Your task to perform on an android device: Open sound settings Image 0: 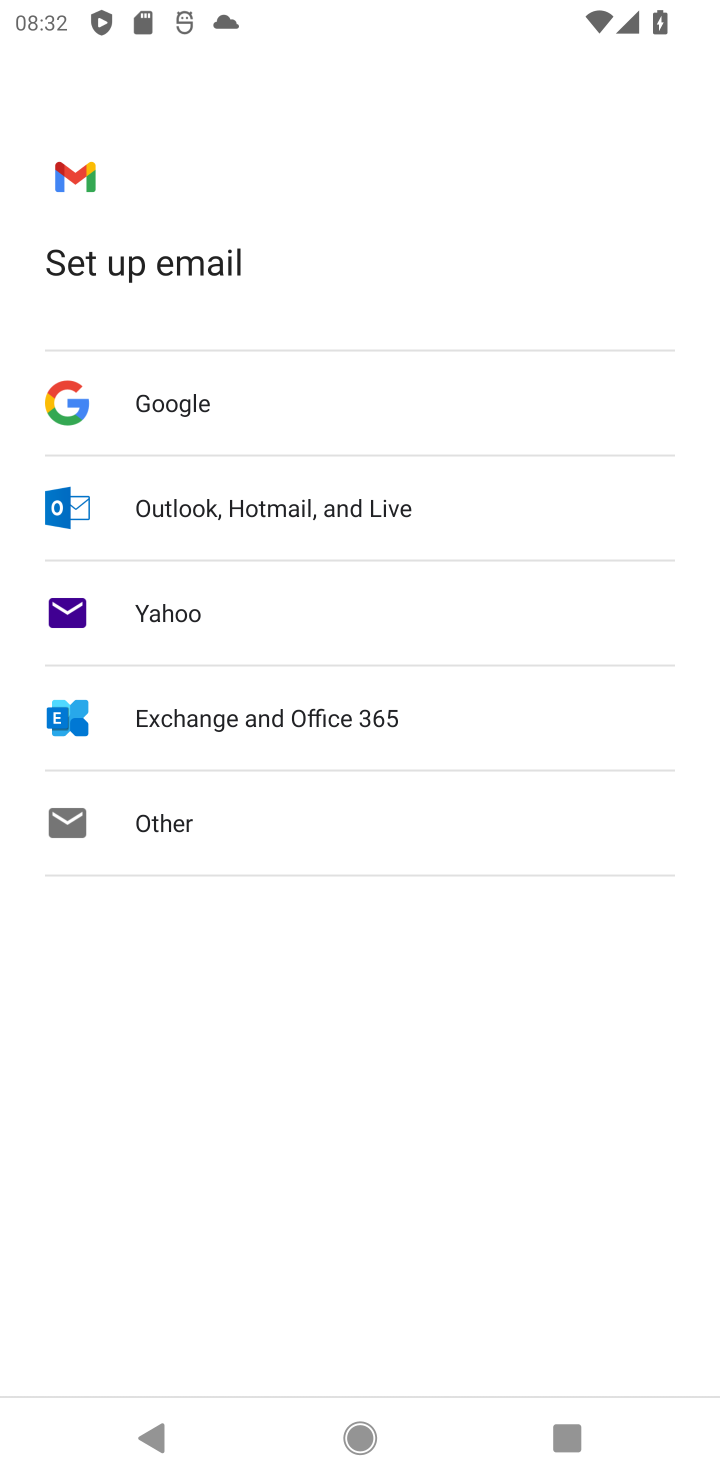
Step 0: press back button
Your task to perform on an android device: Open sound settings Image 1: 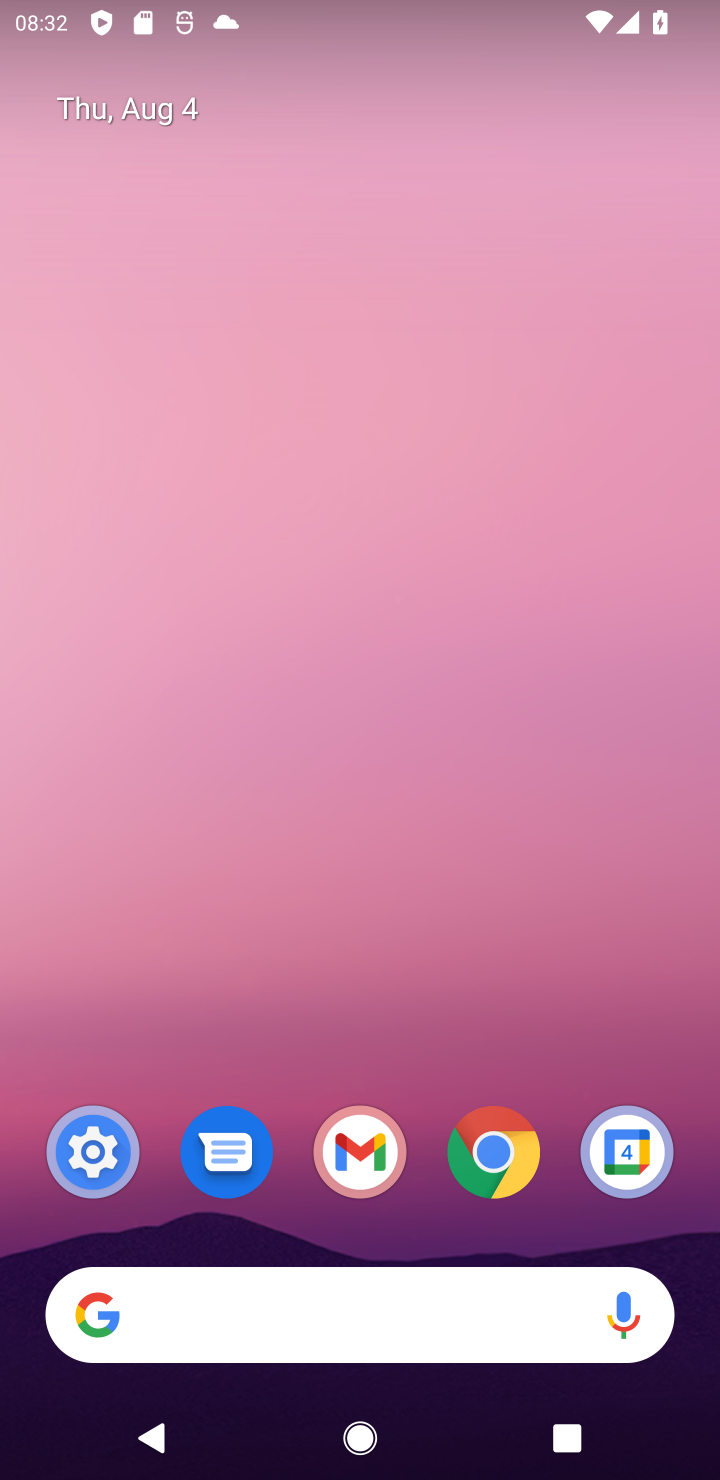
Step 1: drag from (256, 574) to (372, 199)
Your task to perform on an android device: Open sound settings Image 2: 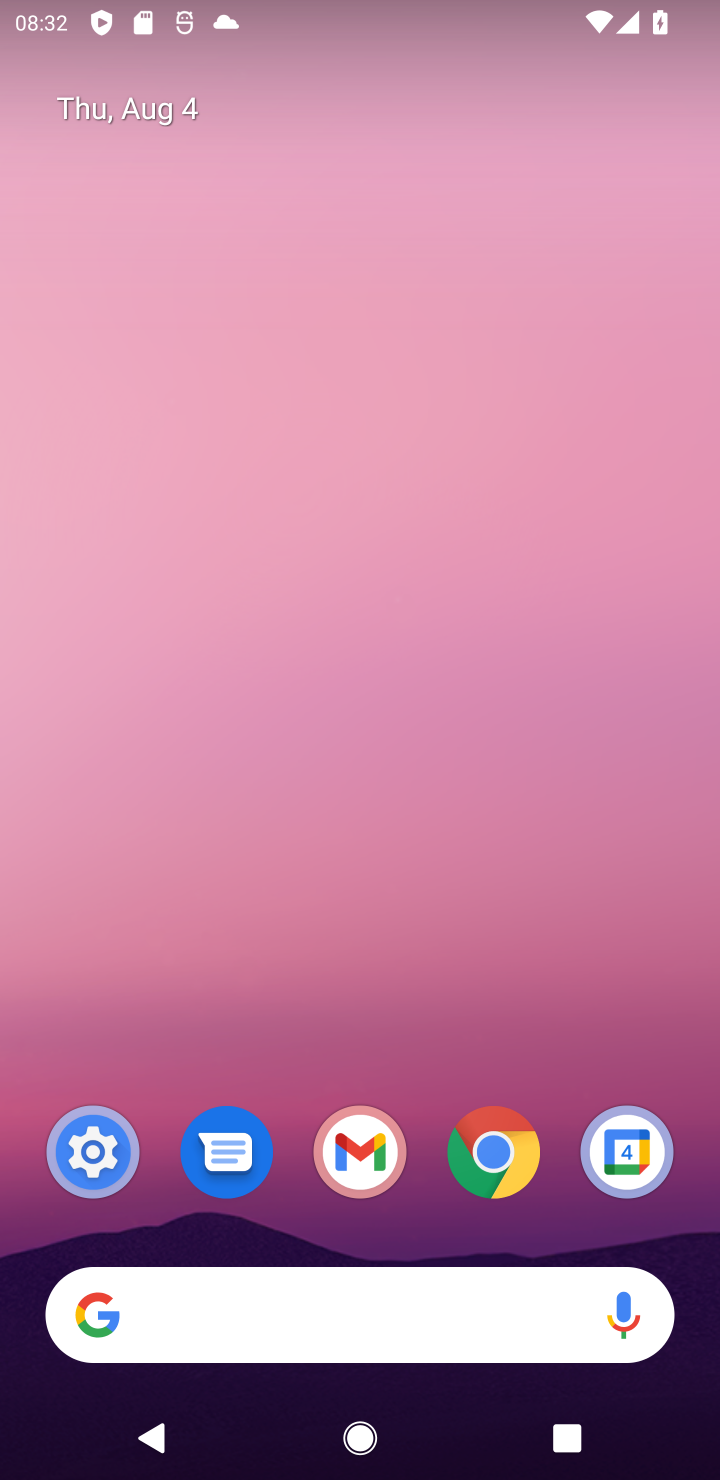
Step 2: click (97, 1139)
Your task to perform on an android device: Open sound settings Image 3: 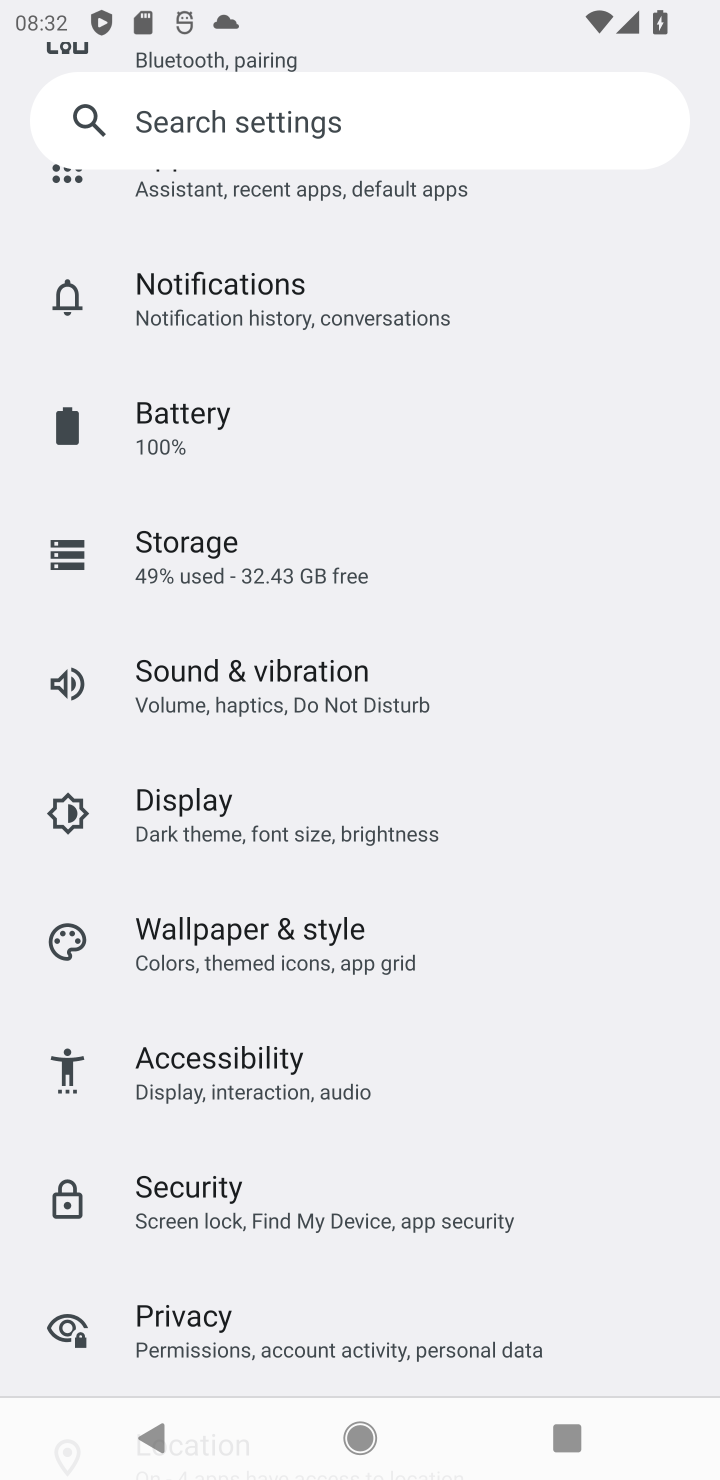
Step 3: drag from (300, 298) to (203, 1292)
Your task to perform on an android device: Open sound settings Image 4: 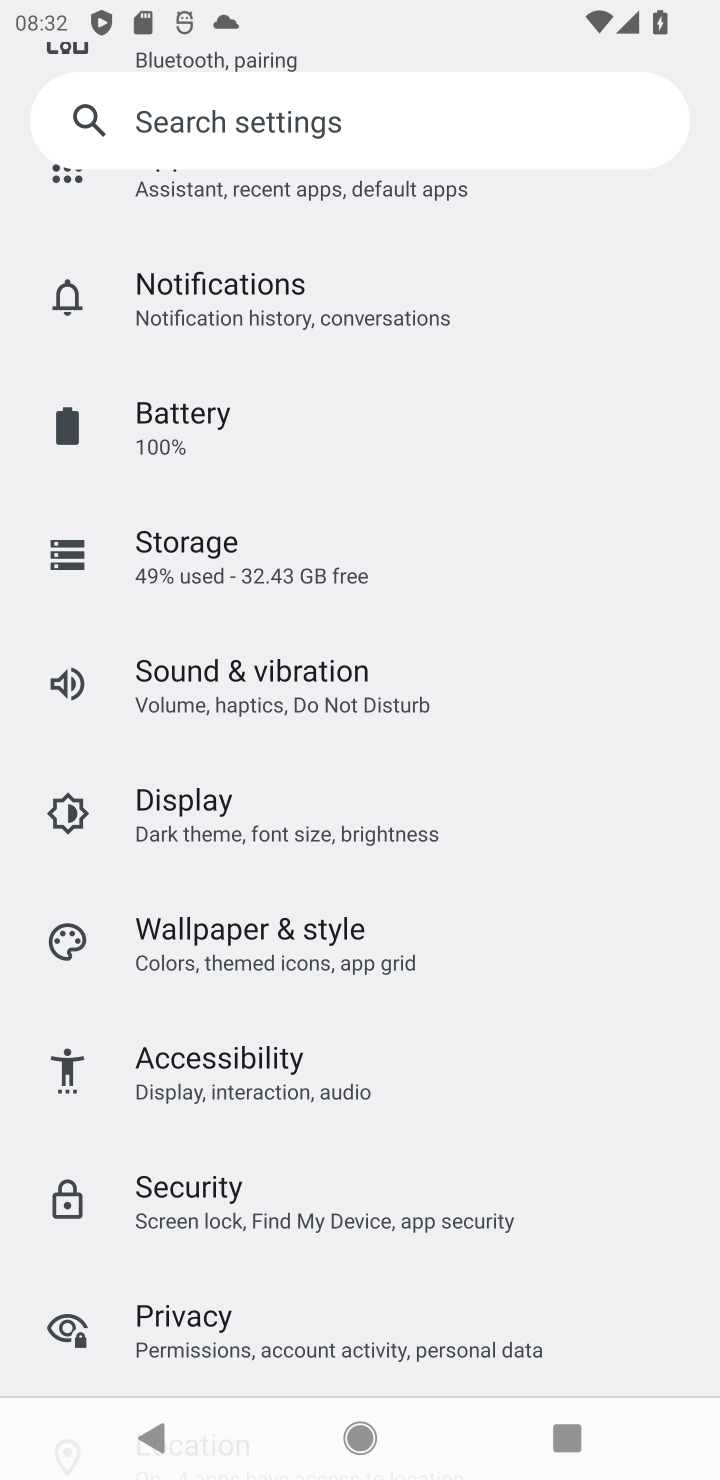
Step 4: drag from (210, 329) to (211, 1294)
Your task to perform on an android device: Open sound settings Image 5: 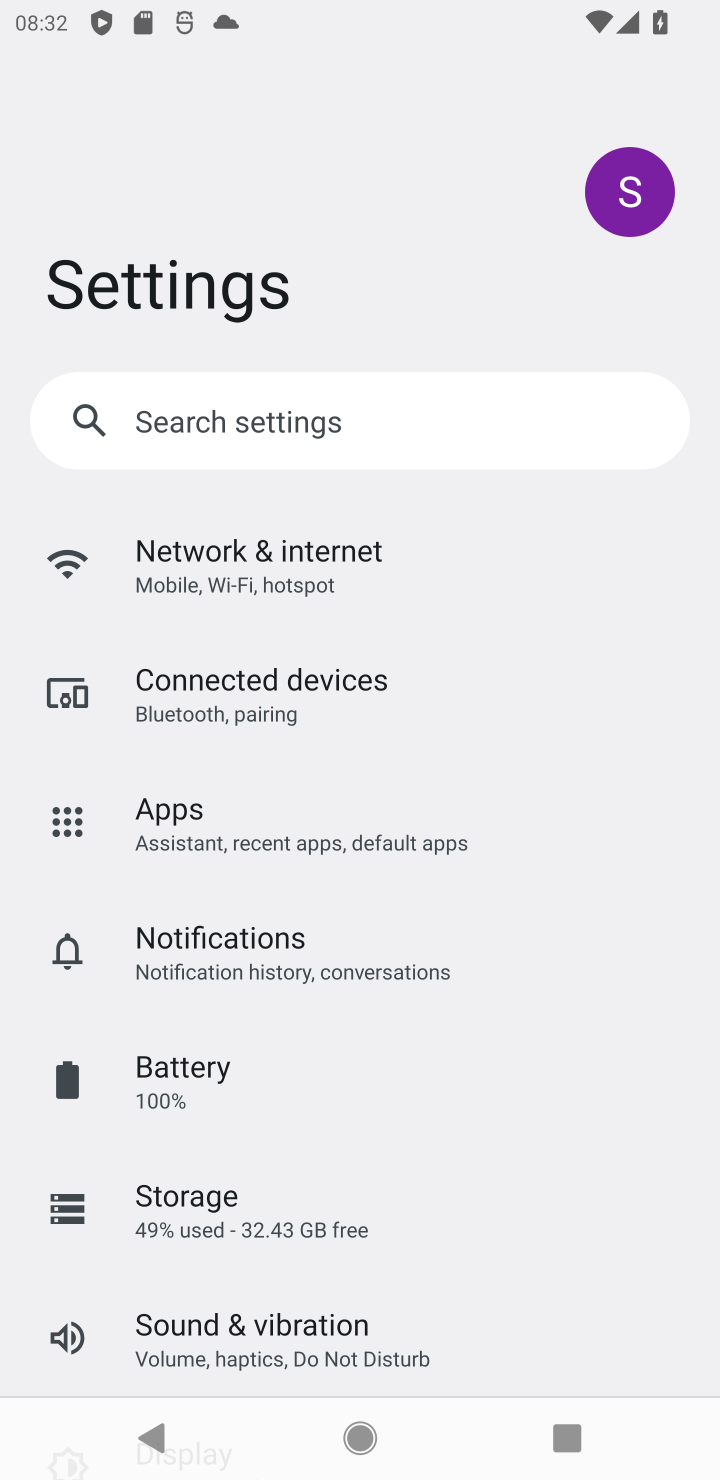
Step 5: drag from (3, 1014) to (418, 331)
Your task to perform on an android device: Open sound settings Image 6: 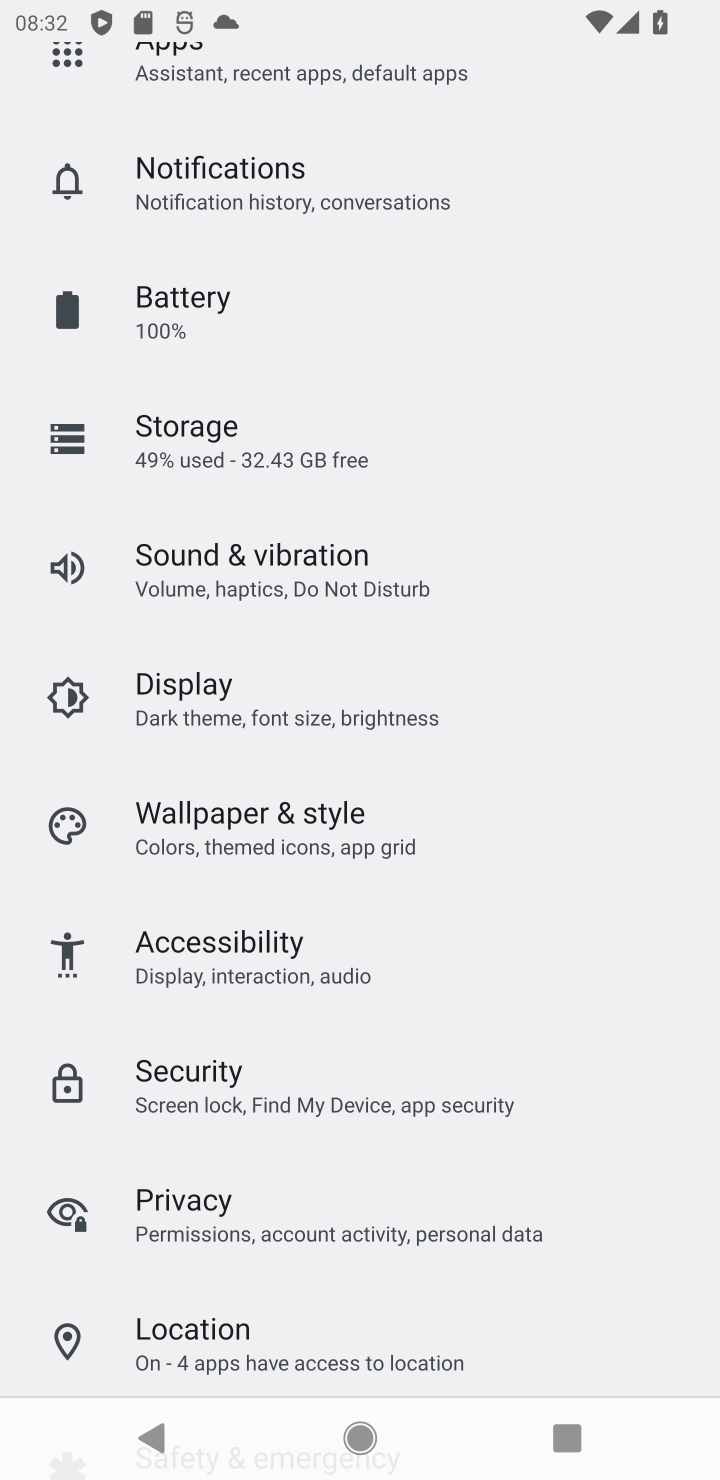
Step 6: drag from (51, 1337) to (361, 291)
Your task to perform on an android device: Open sound settings Image 7: 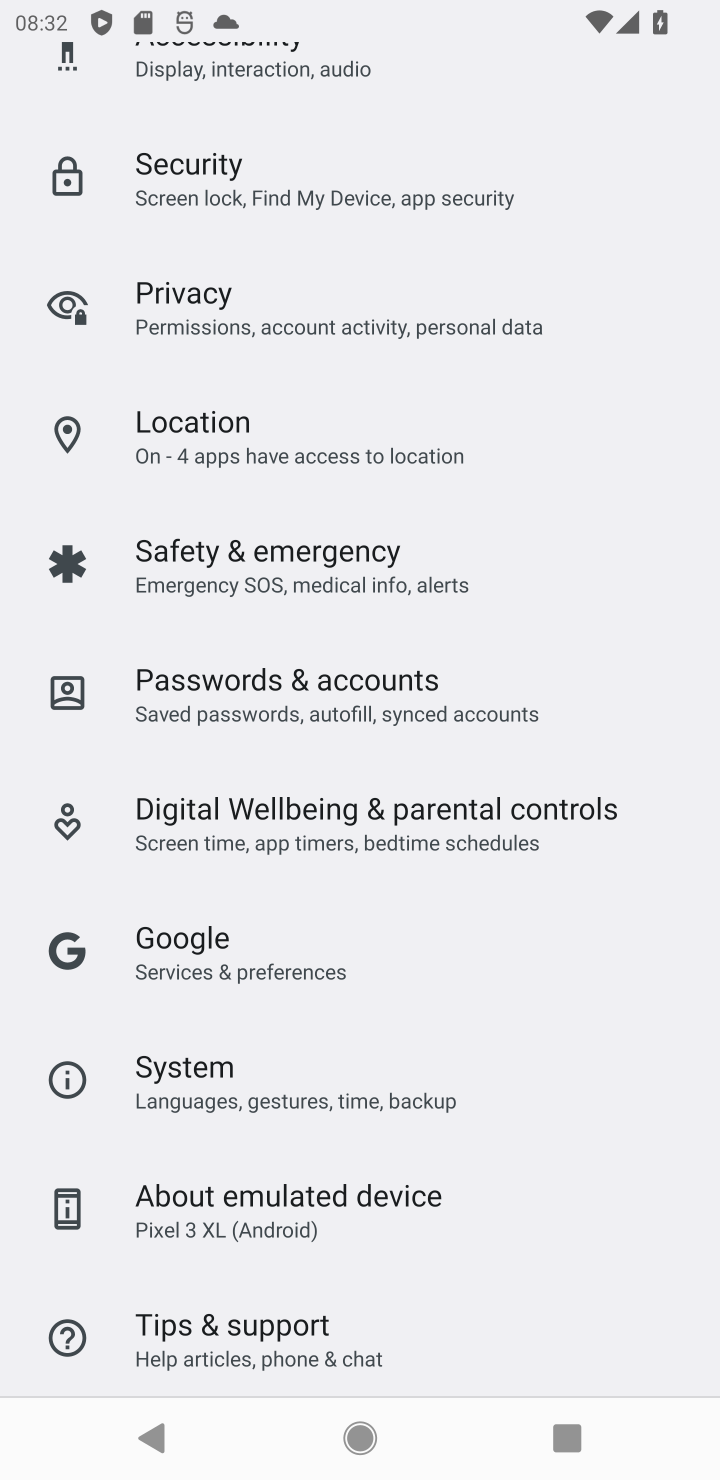
Step 7: drag from (336, 447) to (299, 1268)
Your task to perform on an android device: Open sound settings Image 8: 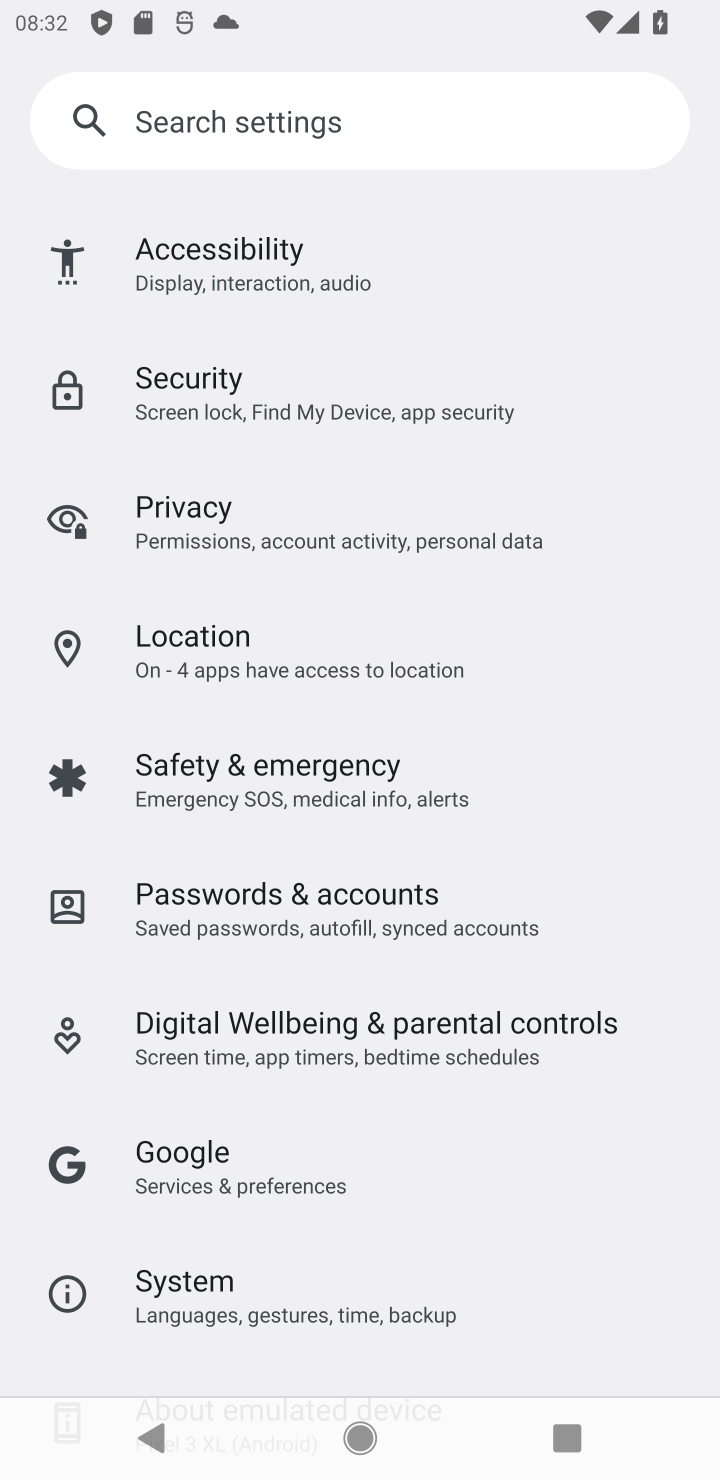
Step 8: drag from (328, 599) to (310, 1230)
Your task to perform on an android device: Open sound settings Image 9: 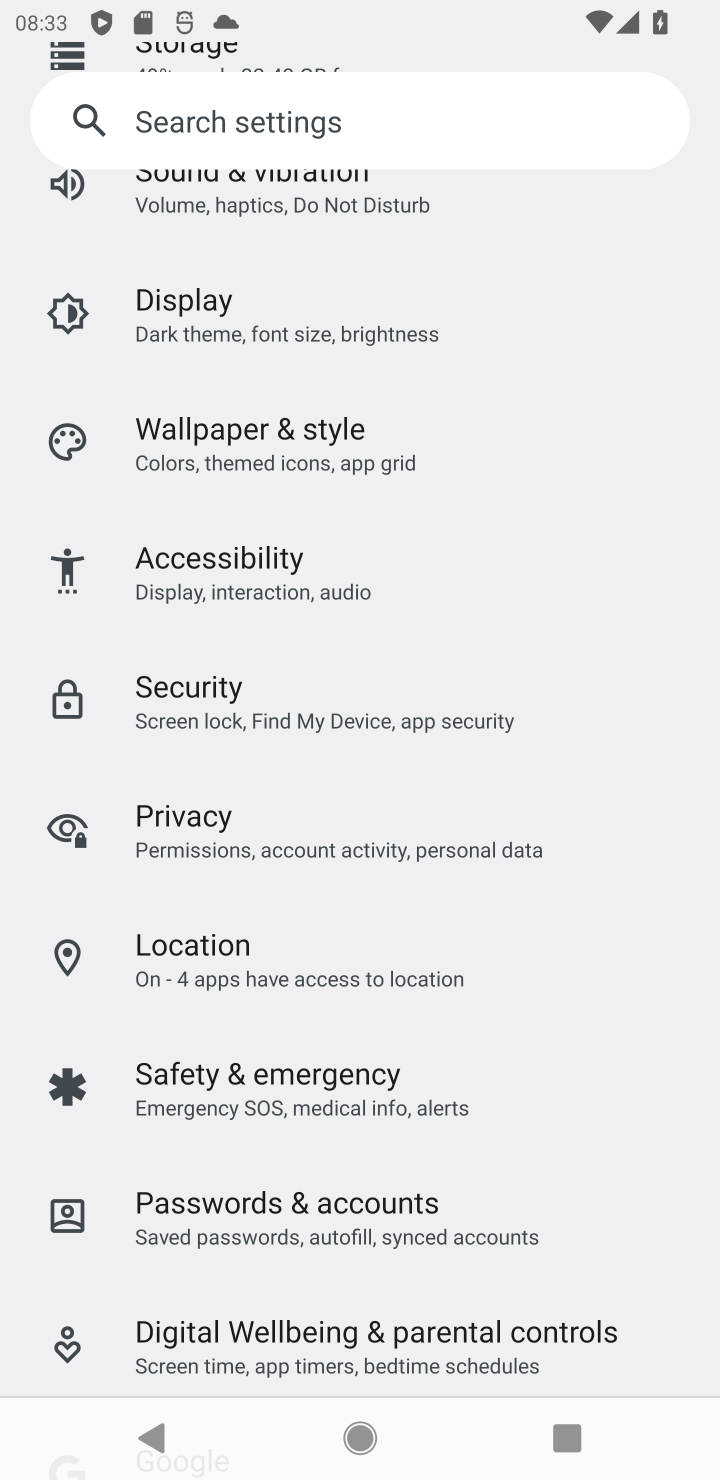
Step 9: click (342, 182)
Your task to perform on an android device: Open sound settings Image 10: 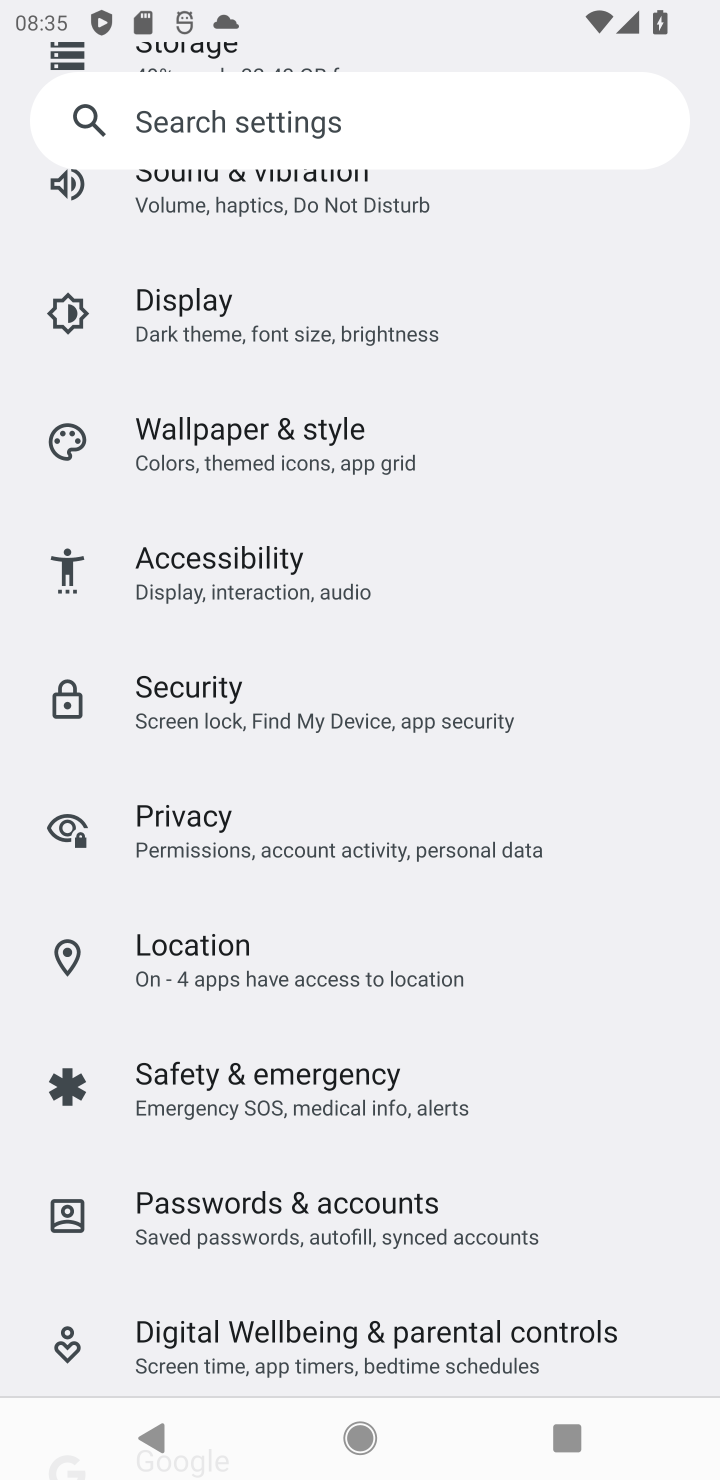
Step 10: task complete